Your task to perform on an android device: make emails show in primary in the gmail app Image 0: 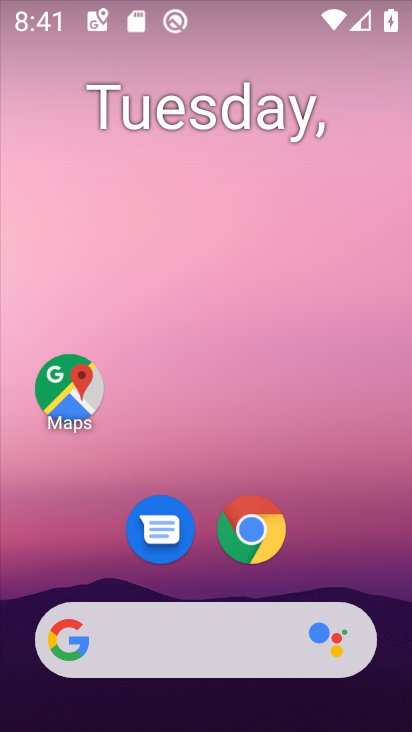
Step 0: drag from (202, 567) to (267, 81)
Your task to perform on an android device: make emails show in primary in the gmail app Image 1: 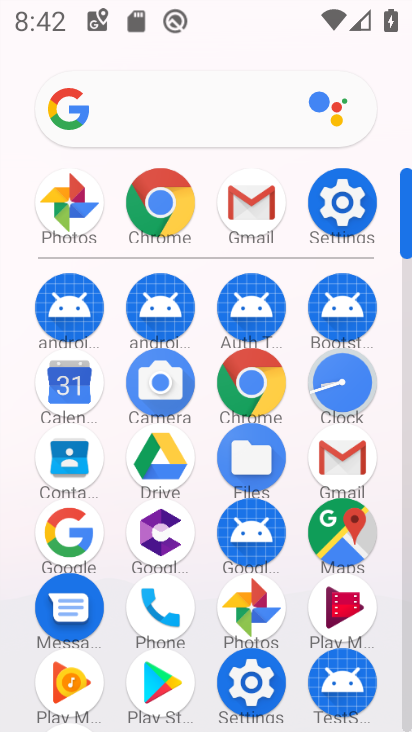
Step 1: click (254, 218)
Your task to perform on an android device: make emails show in primary in the gmail app Image 2: 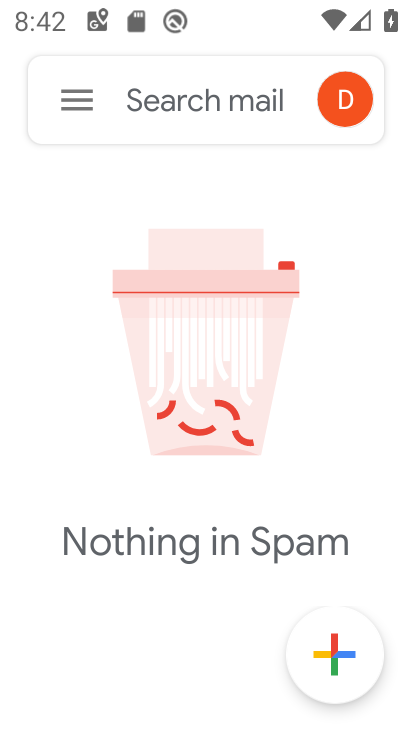
Step 2: click (68, 101)
Your task to perform on an android device: make emails show in primary in the gmail app Image 3: 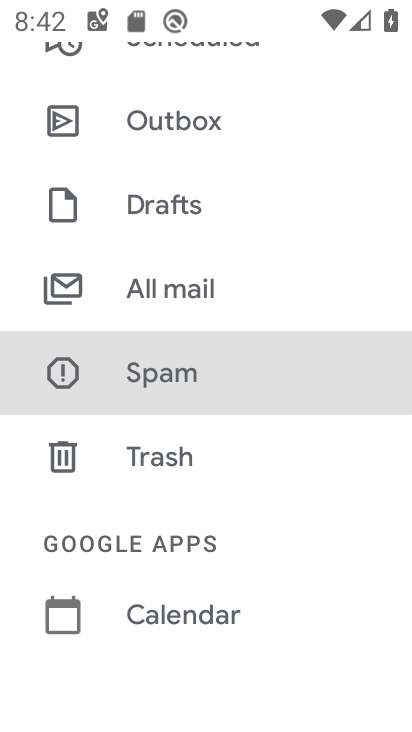
Step 3: drag from (185, 634) to (268, 72)
Your task to perform on an android device: make emails show in primary in the gmail app Image 4: 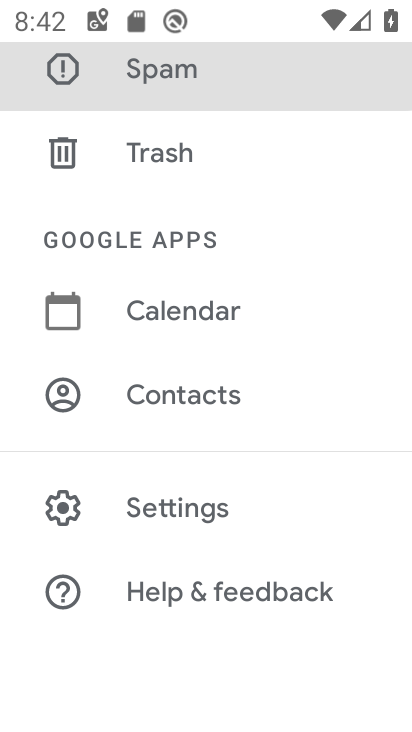
Step 4: click (170, 515)
Your task to perform on an android device: make emails show in primary in the gmail app Image 5: 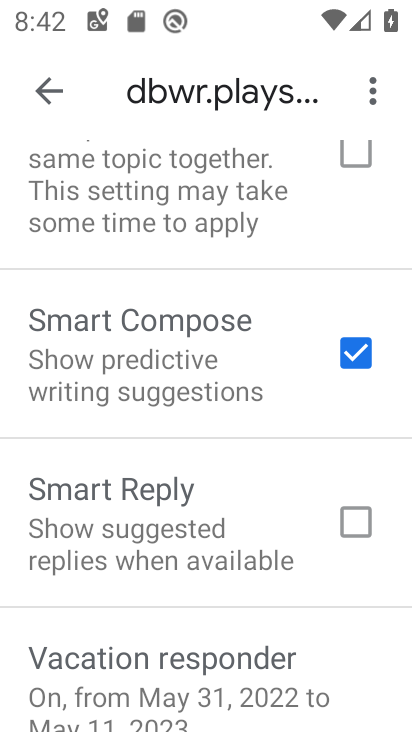
Step 5: task complete